Your task to perform on an android device: Do I have any events today? Image 0: 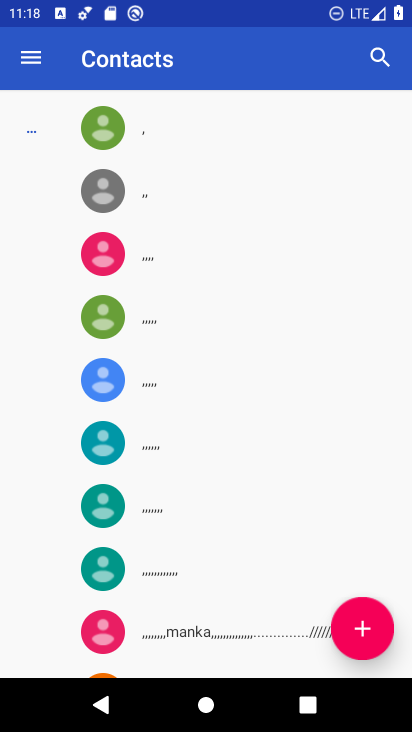
Step 0: press home button
Your task to perform on an android device: Do I have any events today? Image 1: 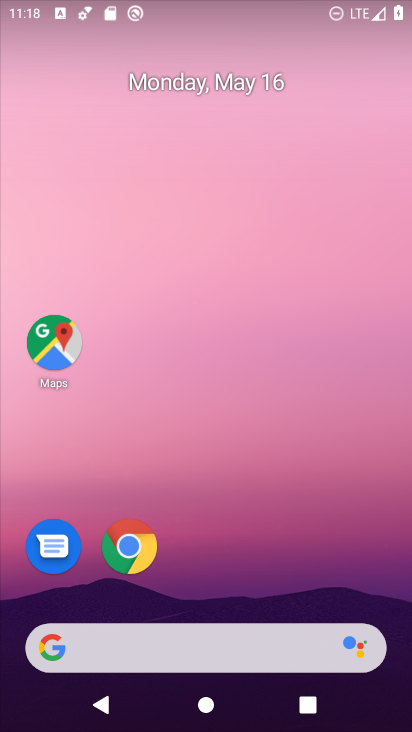
Step 1: click (215, 101)
Your task to perform on an android device: Do I have any events today? Image 2: 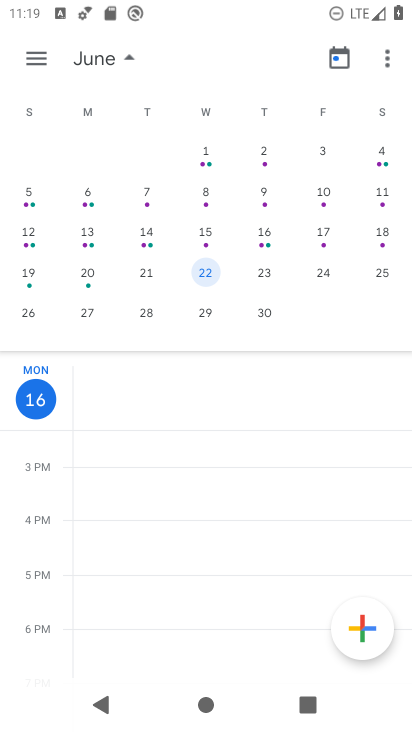
Step 2: click (42, 51)
Your task to perform on an android device: Do I have any events today? Image 3: 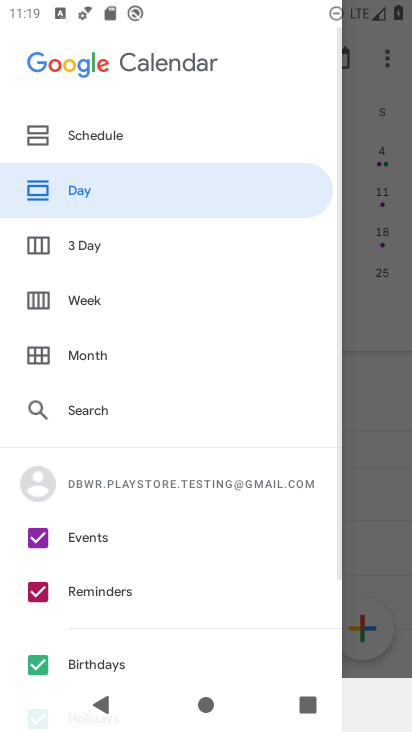
Step 3: click (125, 141)
Your task to perform on an android device: Do I have any events today? Image 4: 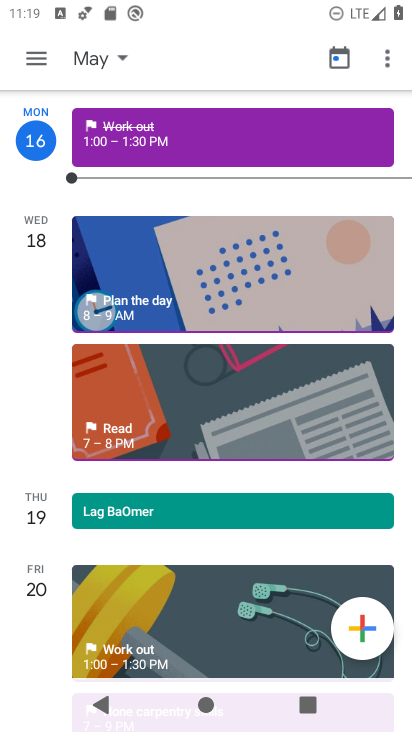
Step 4: task complete